Your task to perform on an android device: Toggle the flashlight Image 0: 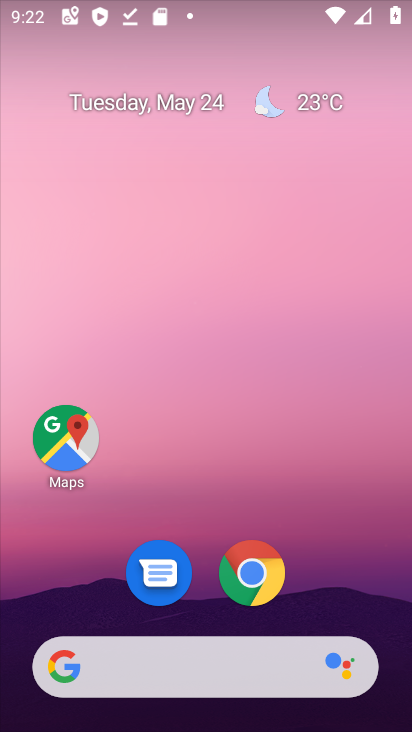
Step 0: click (255, 7)
Your task to perform on an android device: Toggle the flashlight Image 1: 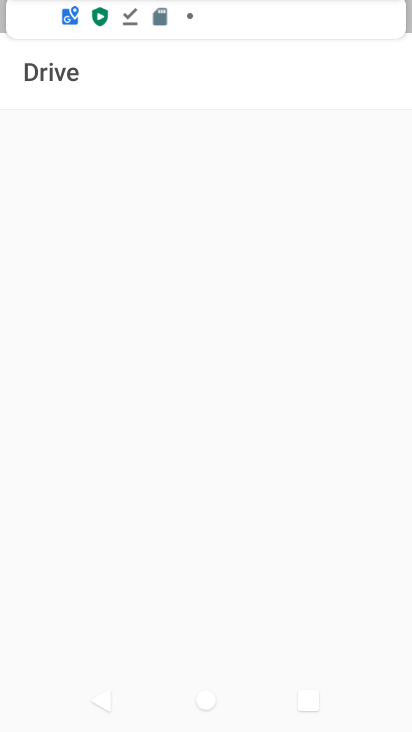
Step 1: click (303, 7)
Your task to perform on an android device: Toggle the flashlight Image 2: 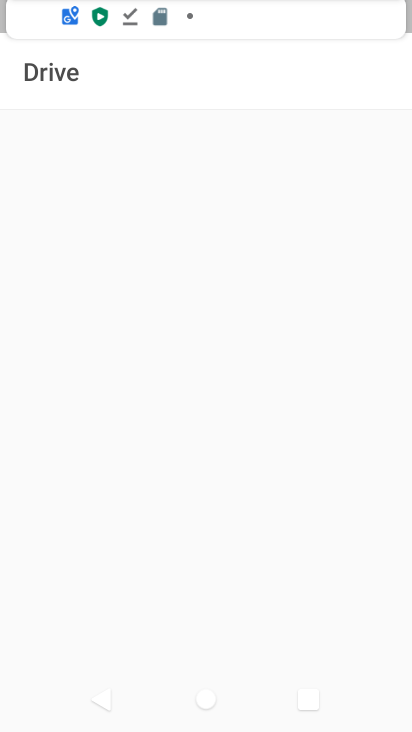
Step 2: drag from (314, 521) to (257, 77)
Your task to perform on an android device: Toggle the flashlight Image 3: 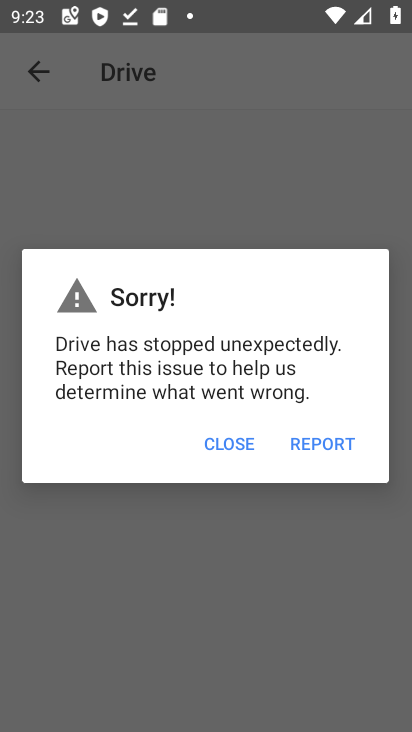
Step 3: click (226, 444)
Your task to perform on an android device: Toggle the flashlight Image 4: 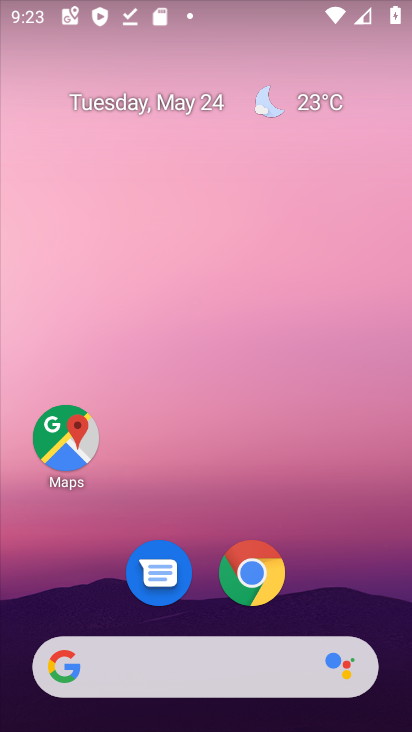
Step 4: task complete